Your task to perform on an android device: Show me productivity apps on the Play Store Image 0: 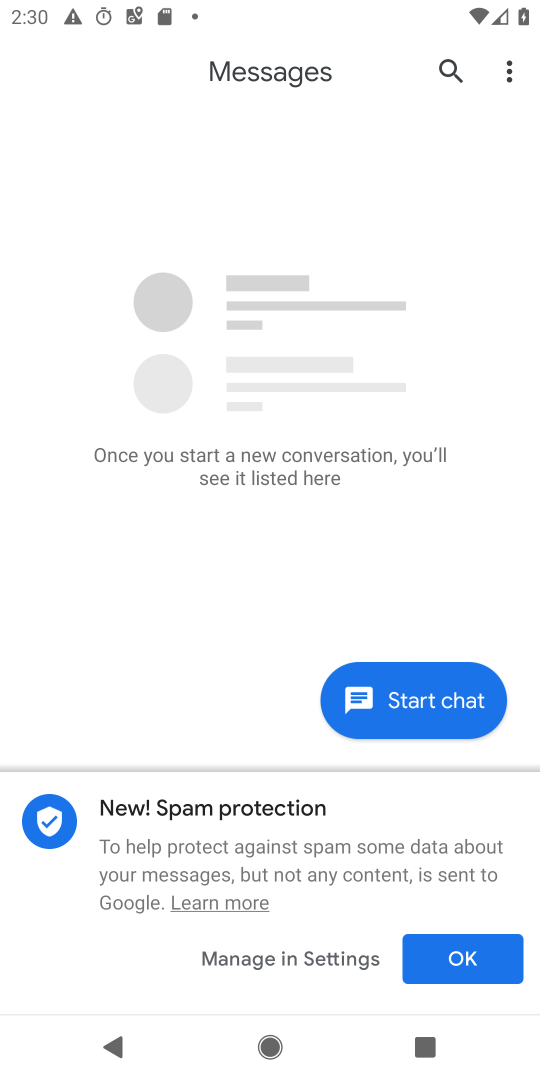
Step 0: press home button
Your task to perform on an android device: Show me productivity apps on the Play Store Image 1: 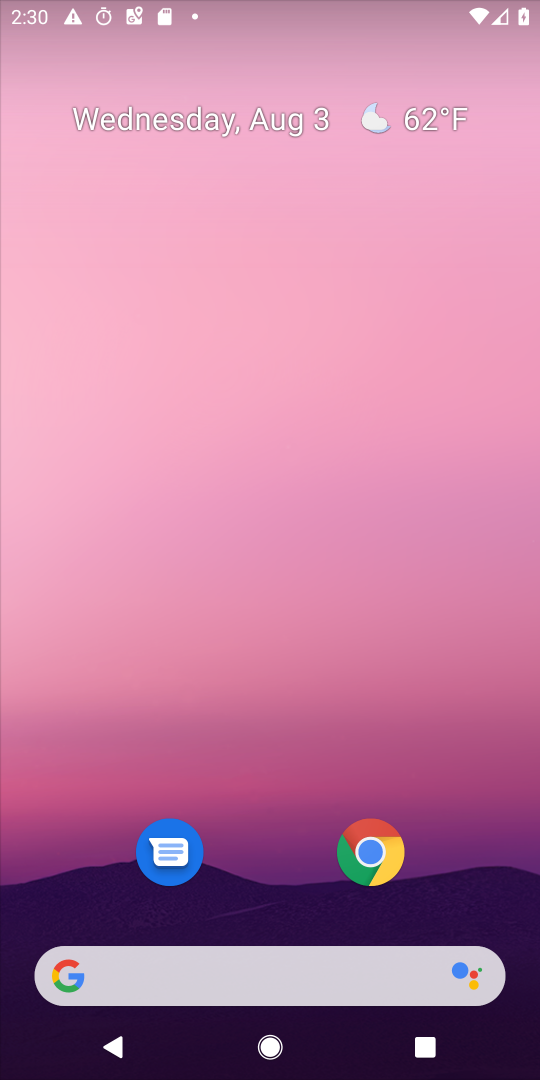
Step 1: drag from (522, 926) to (168, 42)
Your task to perform on an android device: Show me productivity apps on the Play Store Image 2: 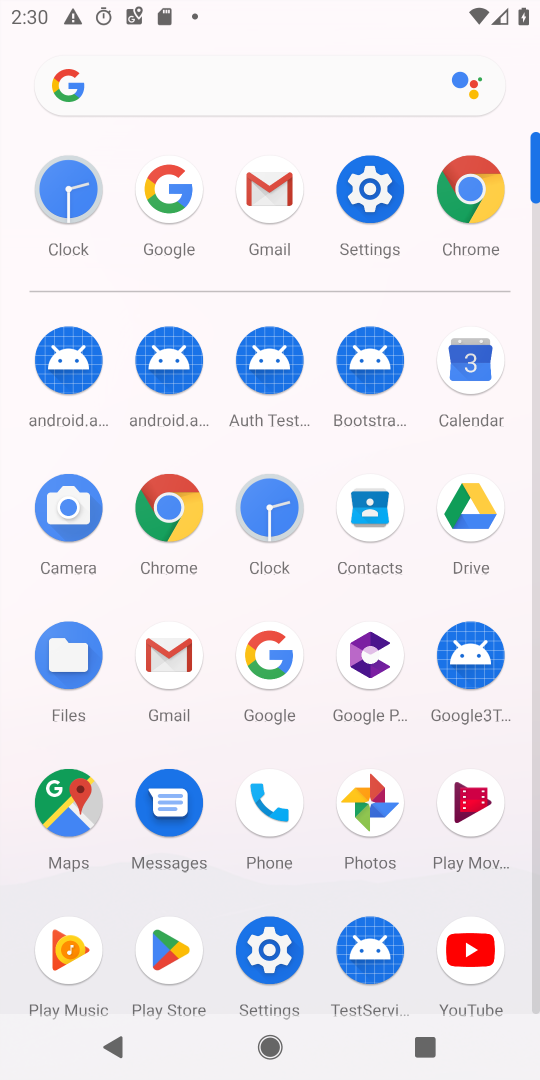
Step 2: click (165, 960)
Your task to perform on an android device: Show me productivity apps on the Play Store Image 3: 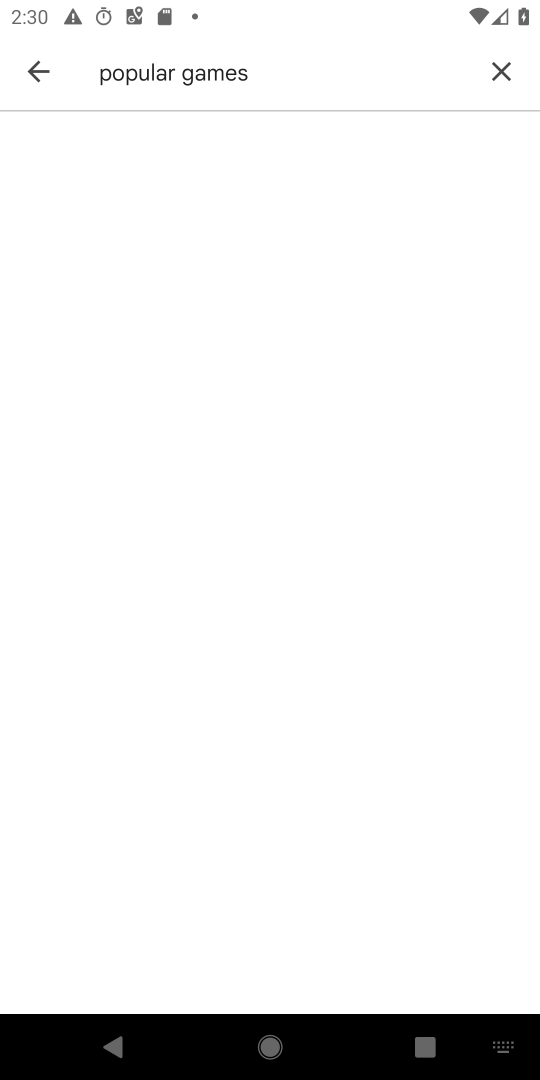
Step 3: click (507, 74)
Your task to perform on an android device: Show me productivity apps on the Play Store Image 4: 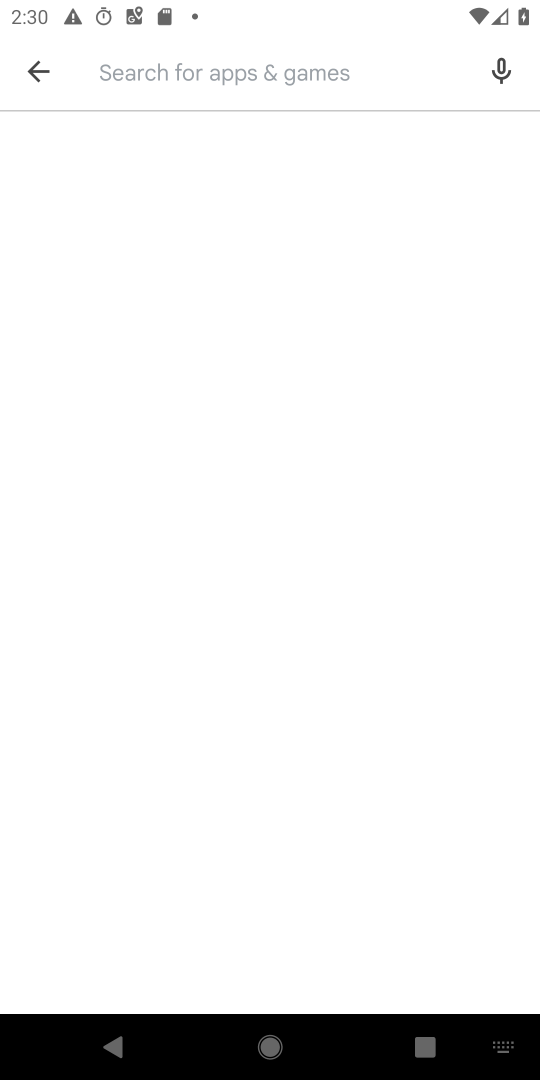
Step 4: task complete